Your task to perform on an android device: Is it going to rain this weekend? Image 0: 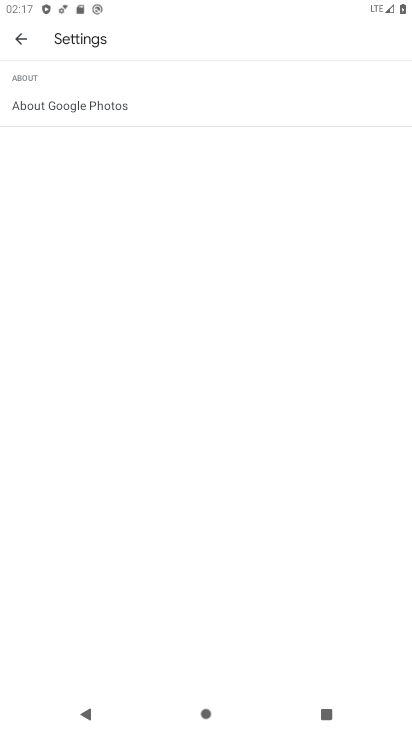
Step 0: press home button
Your task to perform on an android device: Is it going to rain this weekend? Image 1: 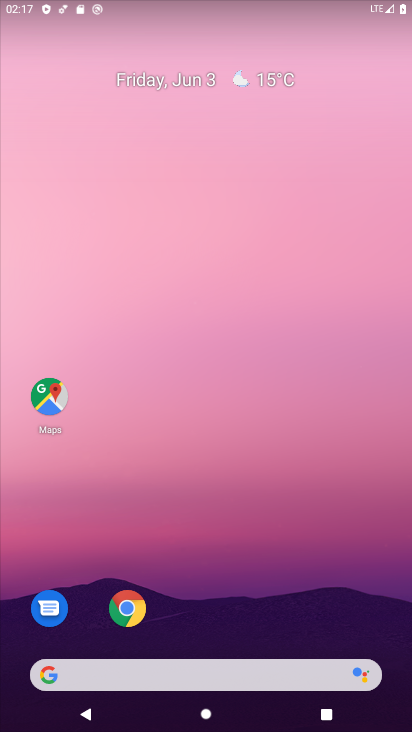
Step 1: click (283, 86)
Your task to perform on an android device: Is it going to rain this weekend? Image 2: 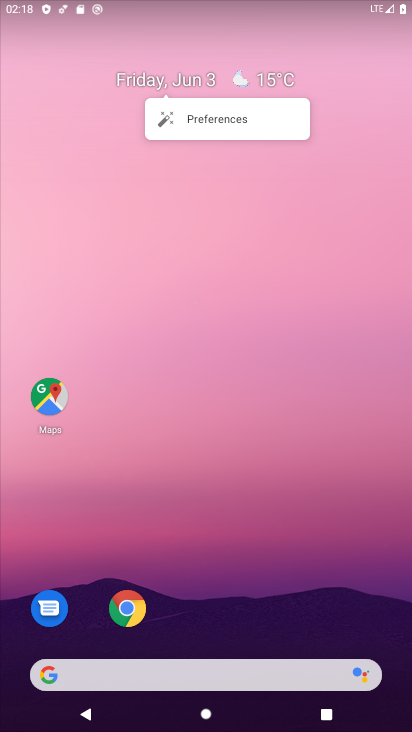
Step 2: click (282, 86)
Your task to perform on an android device: Is it going to rain this weekend? Image 3: 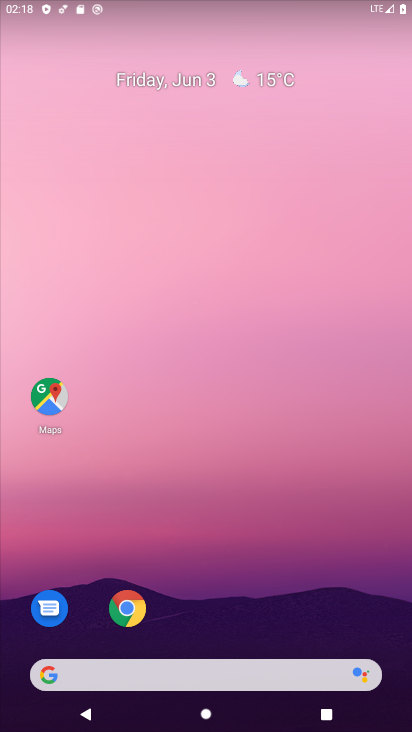
Step 3: click (274, 83)
Your task to perform on an android device: Is it going to rain this weekend? Image 4: 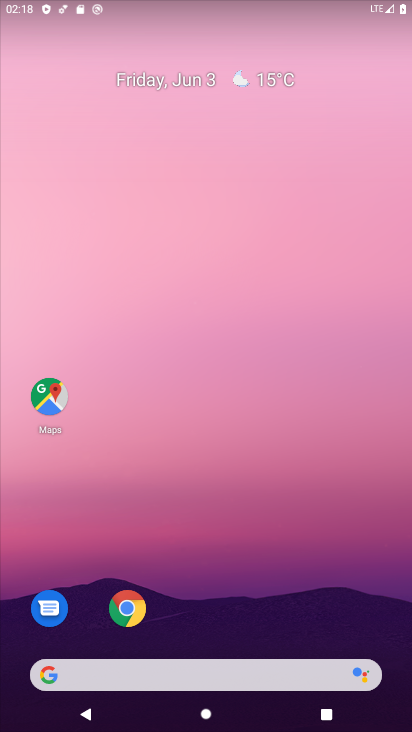
Step 4: click (279, 82)
Your task to perform on an android device: Is it going to rain this weekend? Image 5: 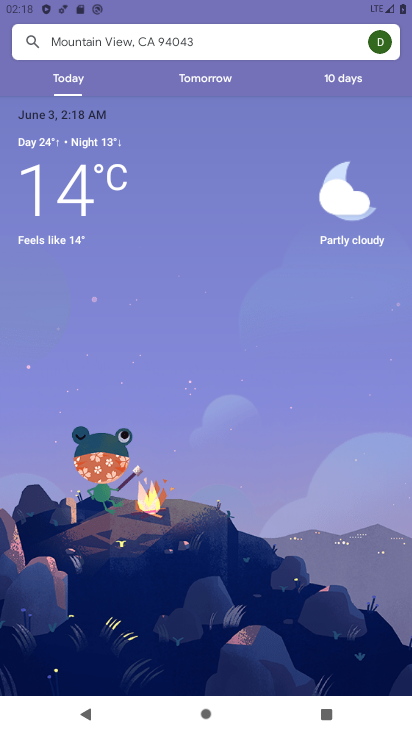
Step 5: click (342, 81)
Your task to perform on an android device: Is it going to rain this weekend? Image 6: 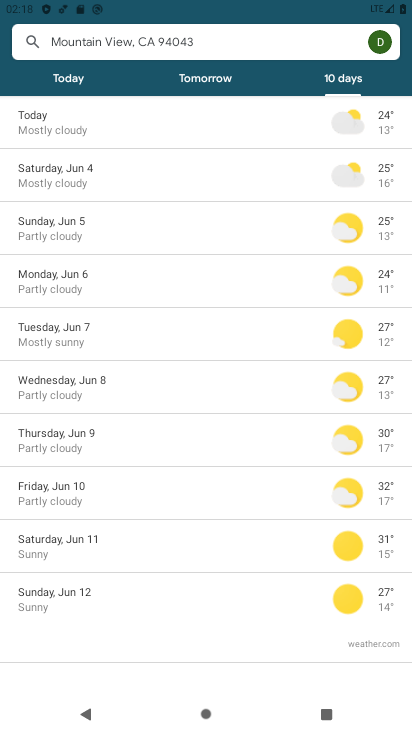
Step 6: task complete